Your task to perform on an android device: turn off data saver in the chrome app Image 0: 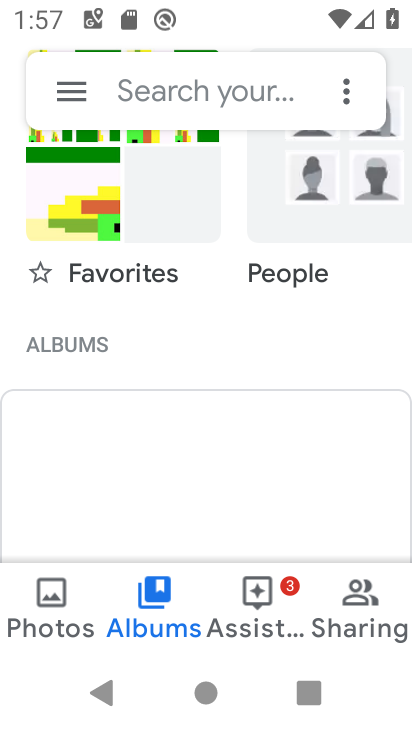
Step 0: press home button
Your task to perform on an android device: turn off data saver in the chrome app Image 1: 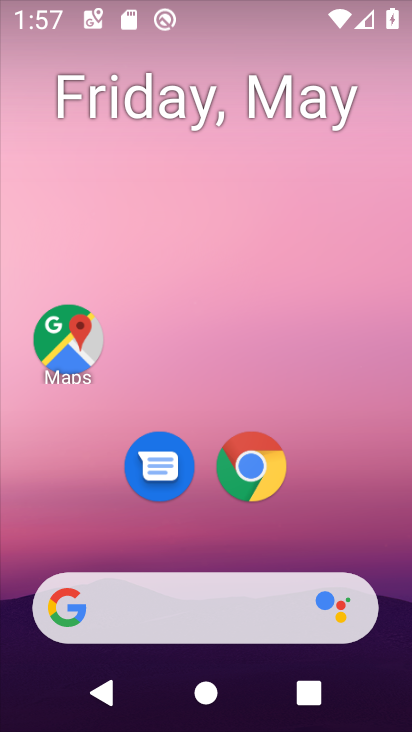
Step 1: drag from (360, 534) to (353, 61)
Your task to perform on an android device: turn off data saver in the chrome app Image 2: 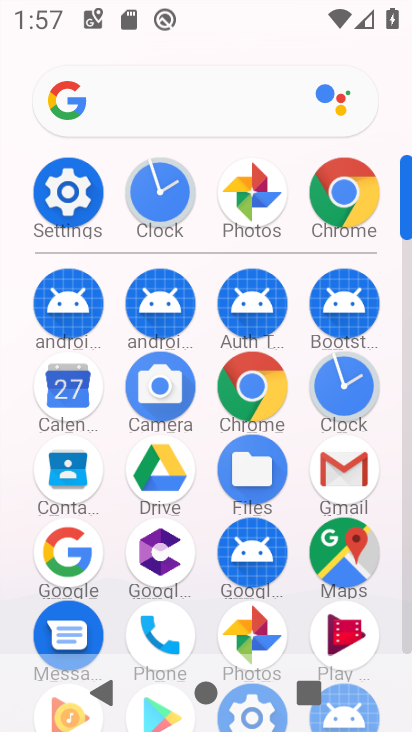
Step 2: click (324, 221)
Your task to perform on an android device: turn off data saver in the chrome app Image 3: 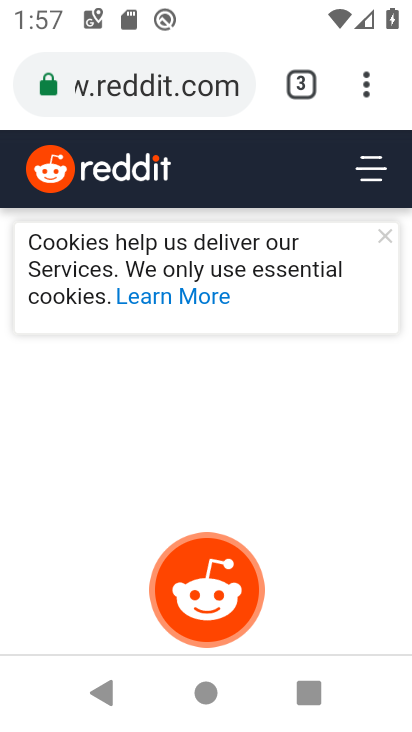
Step 3: drag from (361, 93) to (126, 526)
Your task to perform on an android device: turn off data saver in the chrome app Image 4: 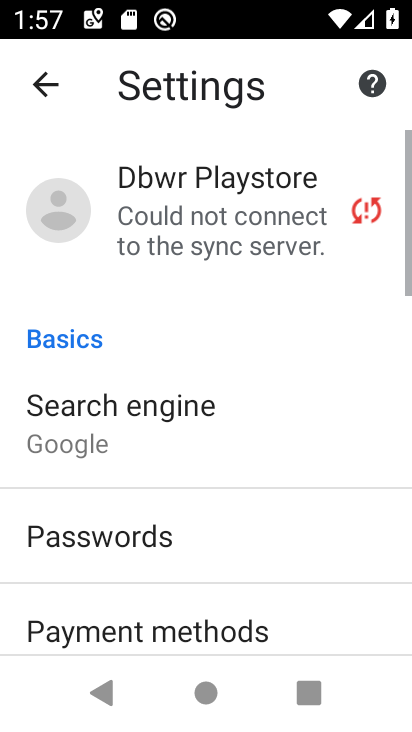
Step 4: drag from (165, 585) to (235, 181)
Your task to perform on an android device: turn off data saver in the chrome app Image 5: 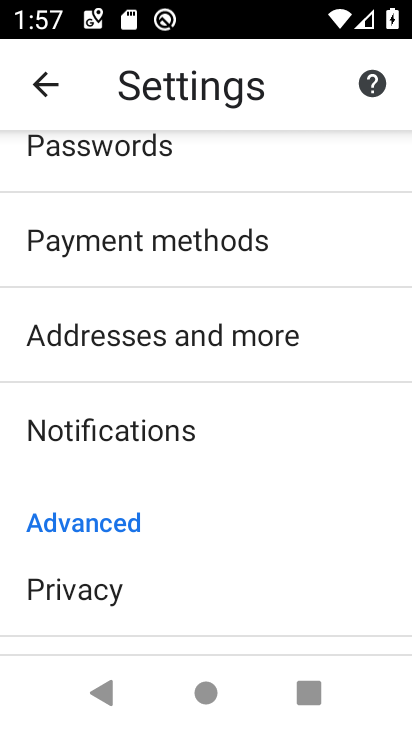
Step 5: drag from (209, 578) to (247, 260)
Your task to perform on an android device: turn off data saver in the chrome app Image 6: 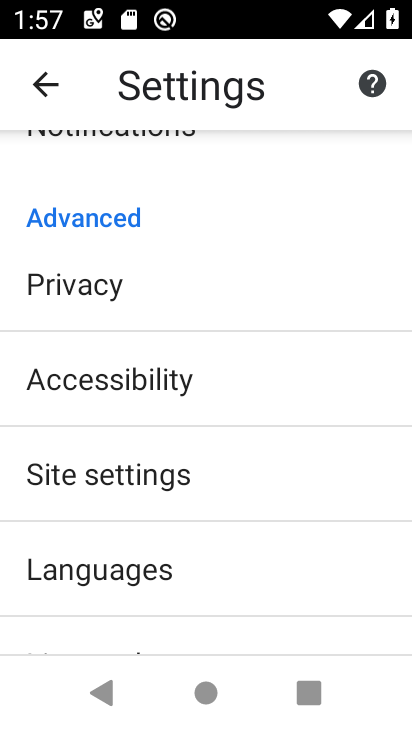
Step 6: drag from (221, 545) to (299, 138)
Your task to perform on an android device: turn off data saver in the chrome app Image 7: 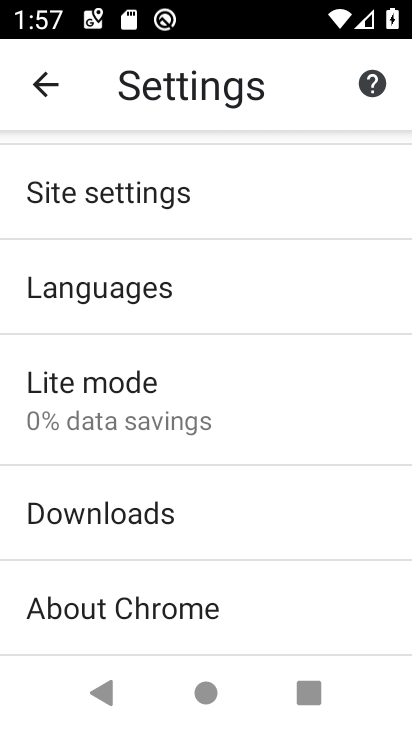
Step 7: click (94, 397)
Your task to perform on an android device: turn off data saver in the chrome app Image 8: 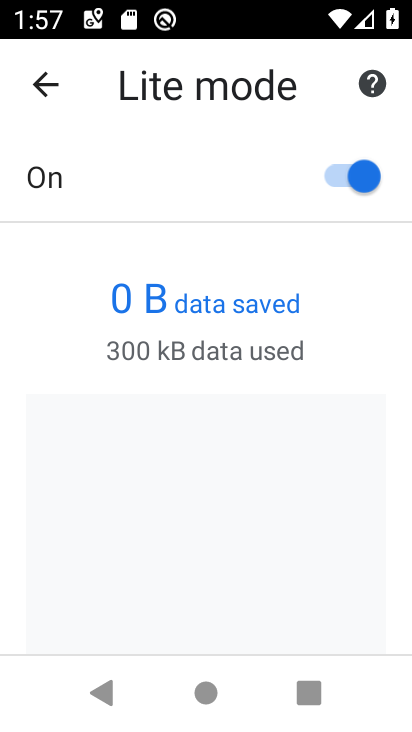
Step 8: click (354, 177)
Your task to perform on an android device: turn off data saver in the chrome app Image 9: 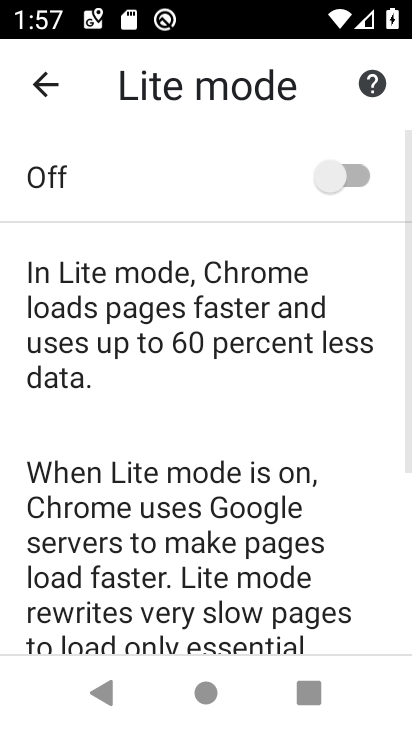
Step 9: task complete